Your task to perform on an android device: open app "VLC for Android" (install if not already installed), go to login, and select forgot password Image 0: 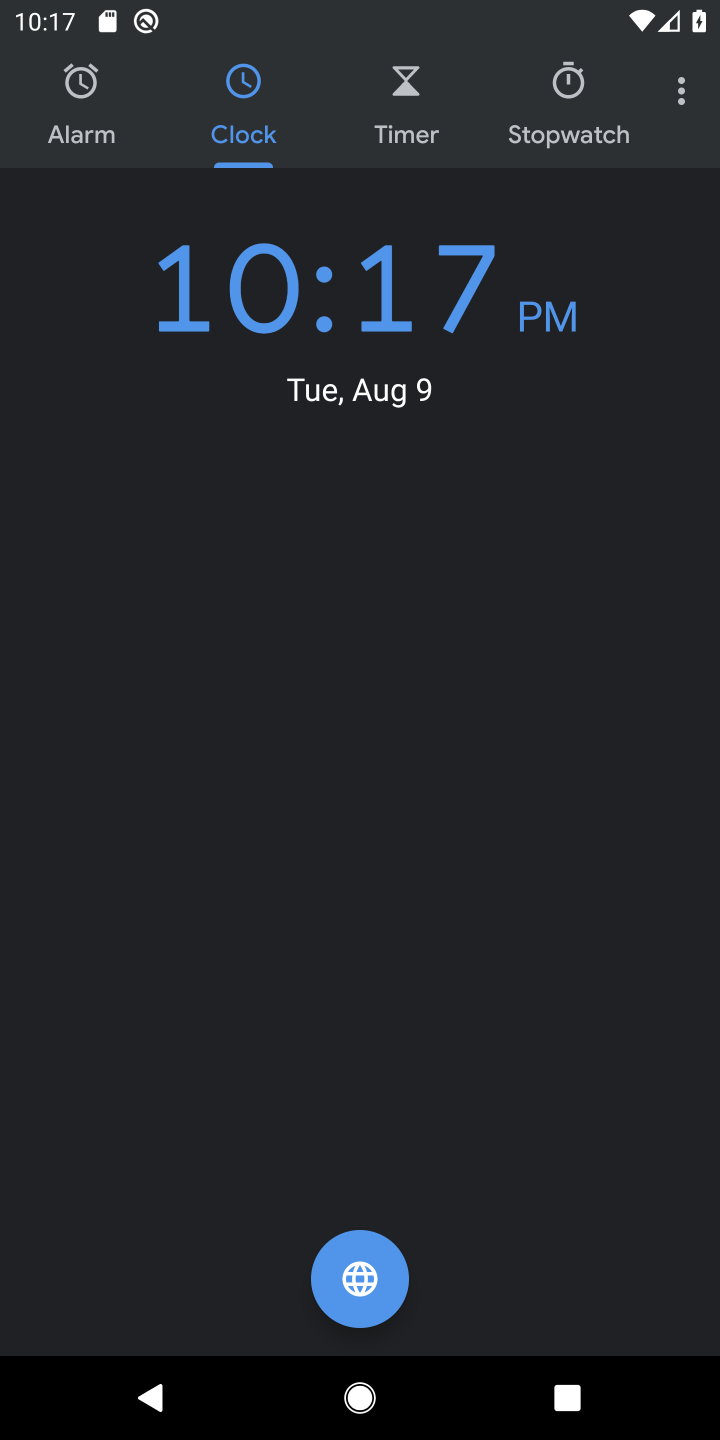
Step 0: press home button
Your task to perform on an android device: open app "VLC for Android" (install if not already installed), go to login, and select forgot password Image 1: 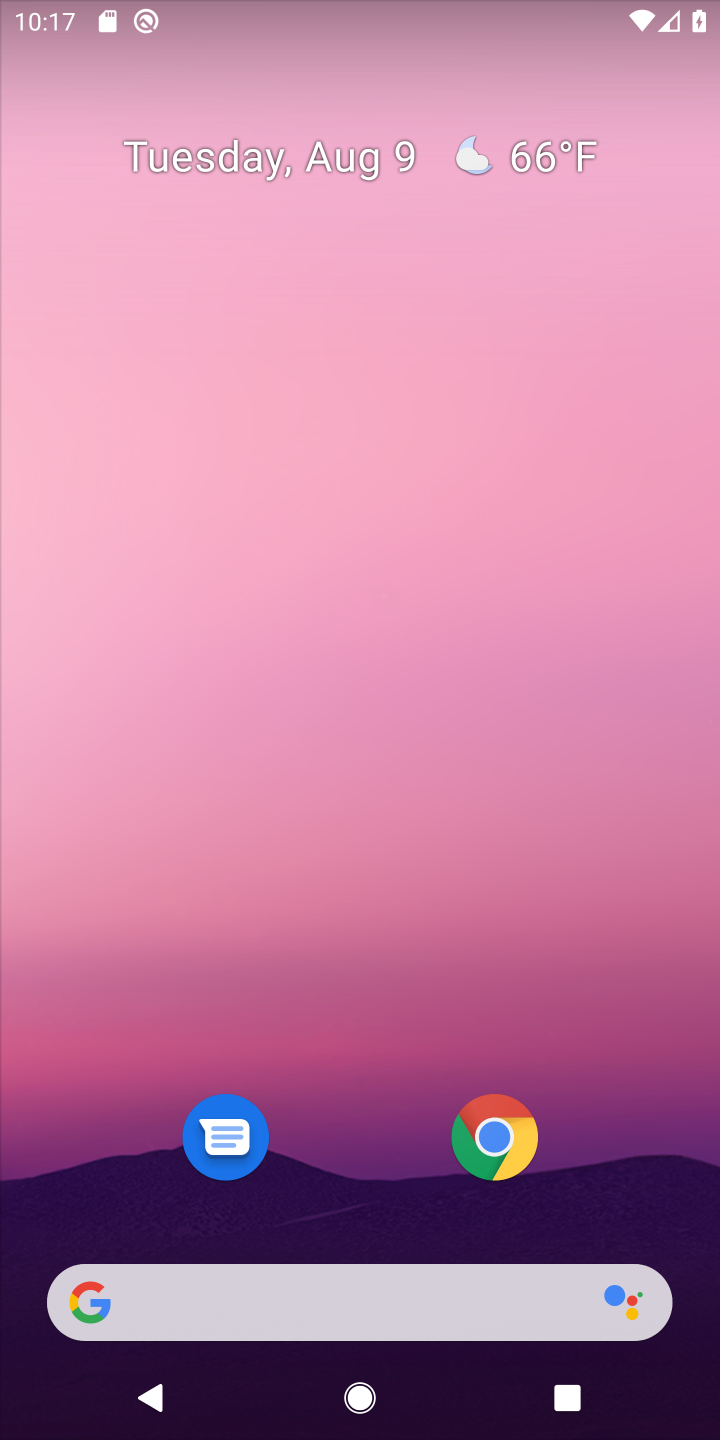
Step 1: drag from (361, 1154) to (382, 542)
Your task to perform on an android device: open app "VLC for Android" (install if not already installed), go to login, and select forgot password Image 2: 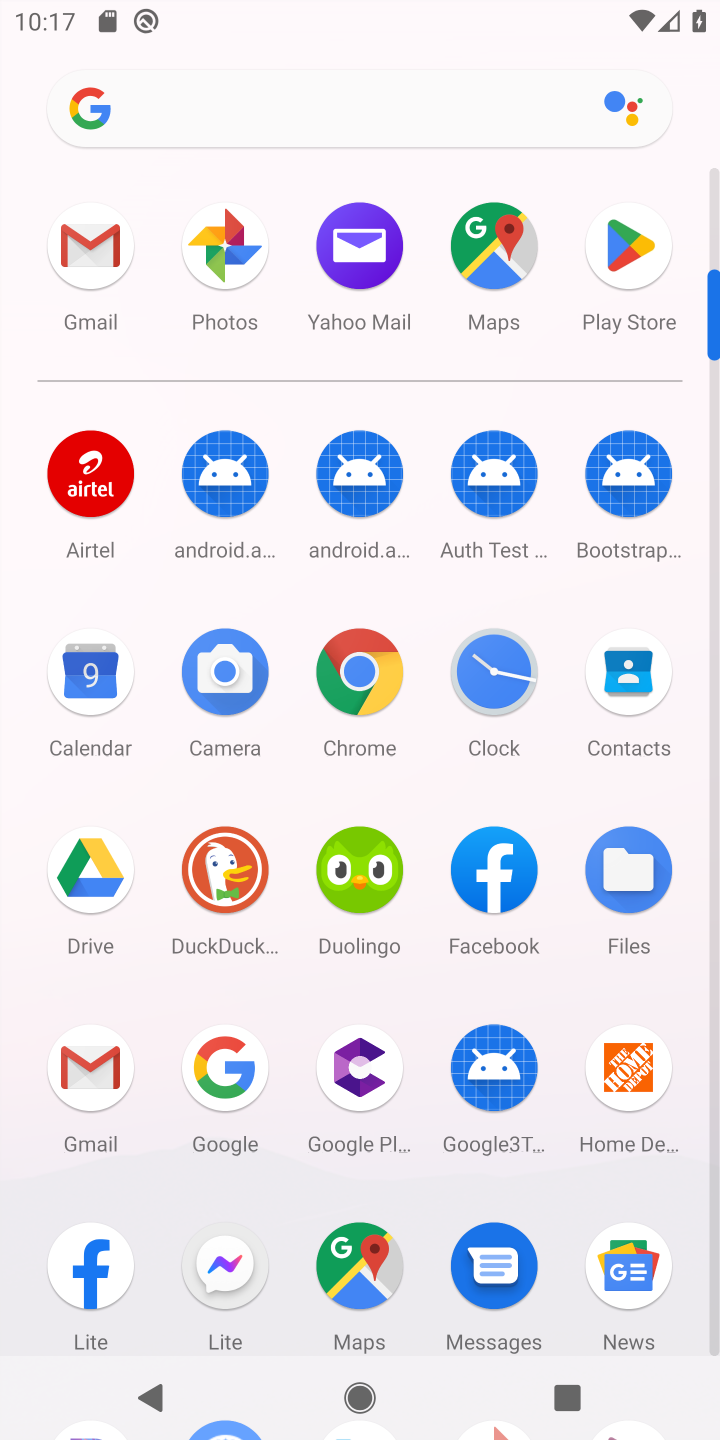
Step 2: click (622, 273)
Your task to perform on an android device: open app "VLC for Android" (install if not already installed), go to login, and select forgot password Image 3: 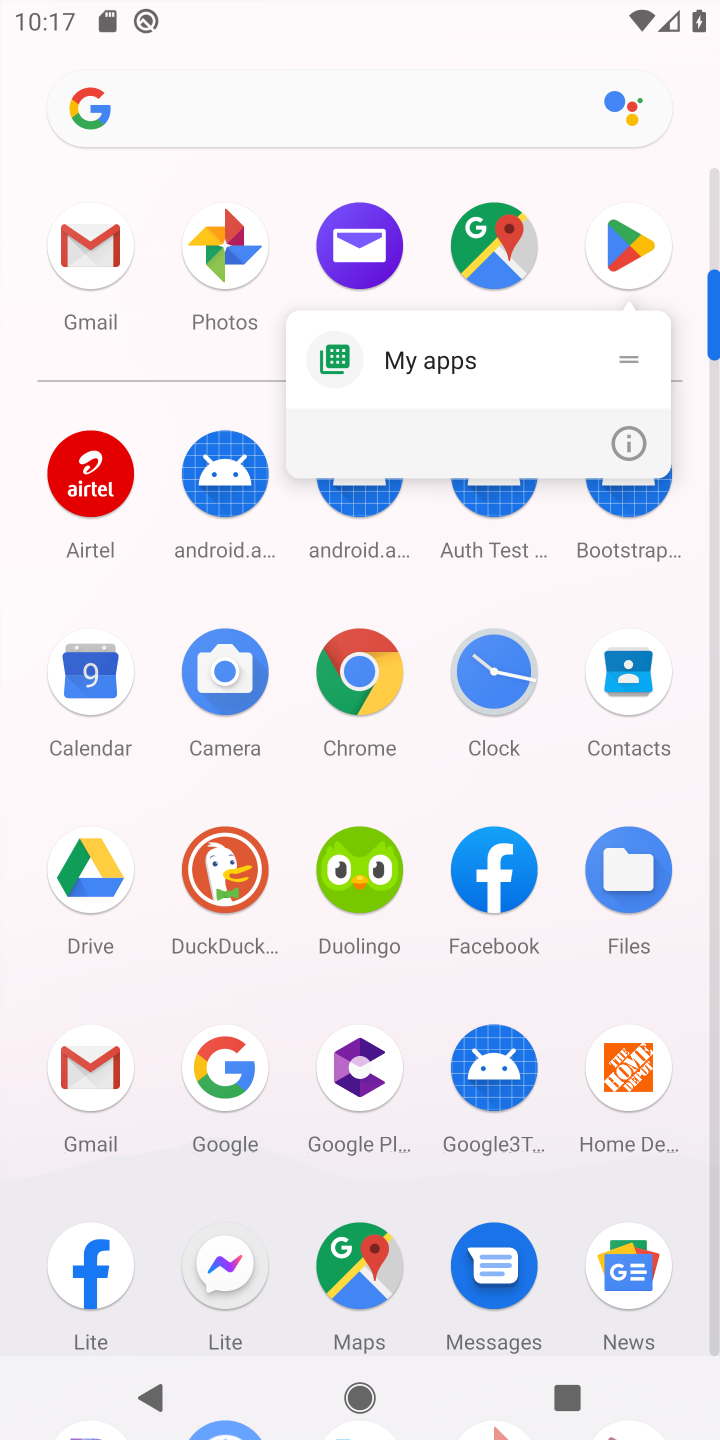
Step 3: click (647, 236)
Your task to perform on an android device: open app "VLC for Android" (install if not already installed), go to login, and select forgot password Image 4: 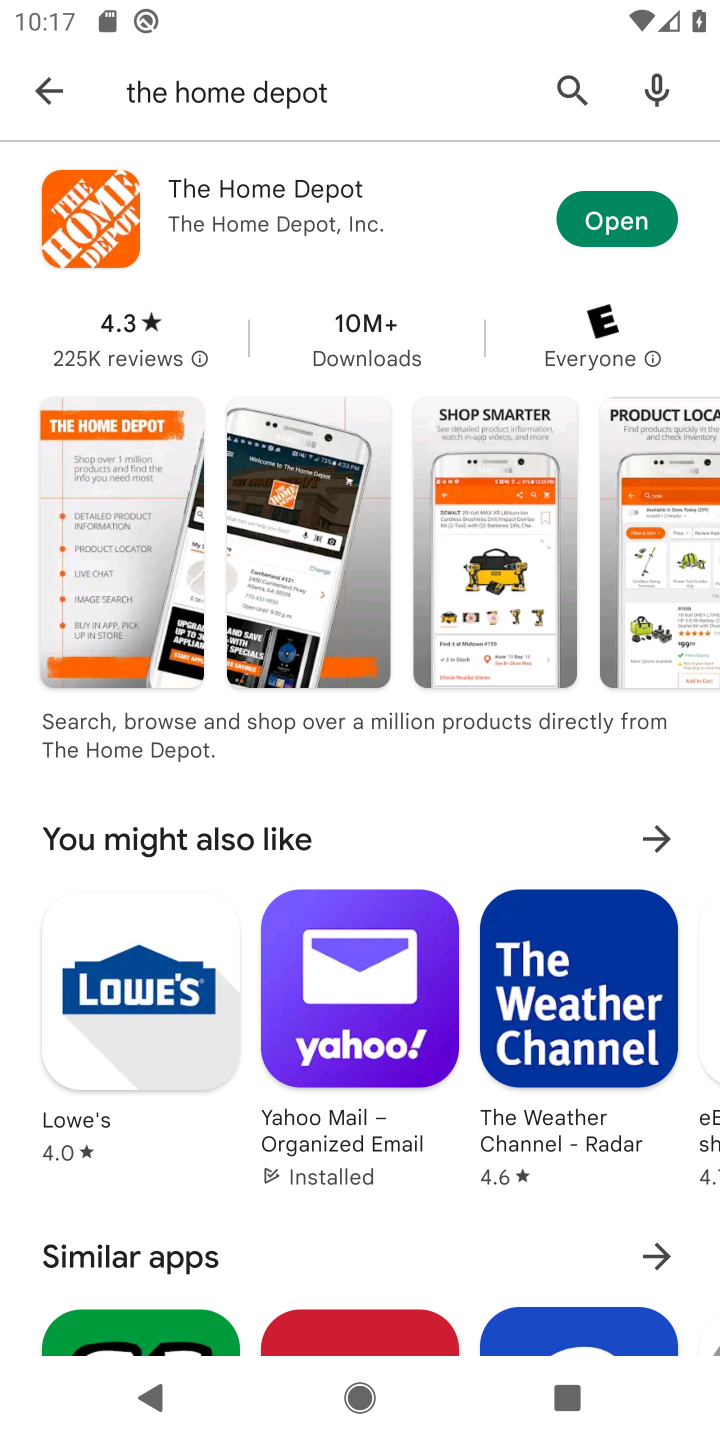
Step 4: click (575, 66)
Your task to perform on an android device: open app "VLC for Android" (install if not already installed), go to login, and select forgot password Image 5: 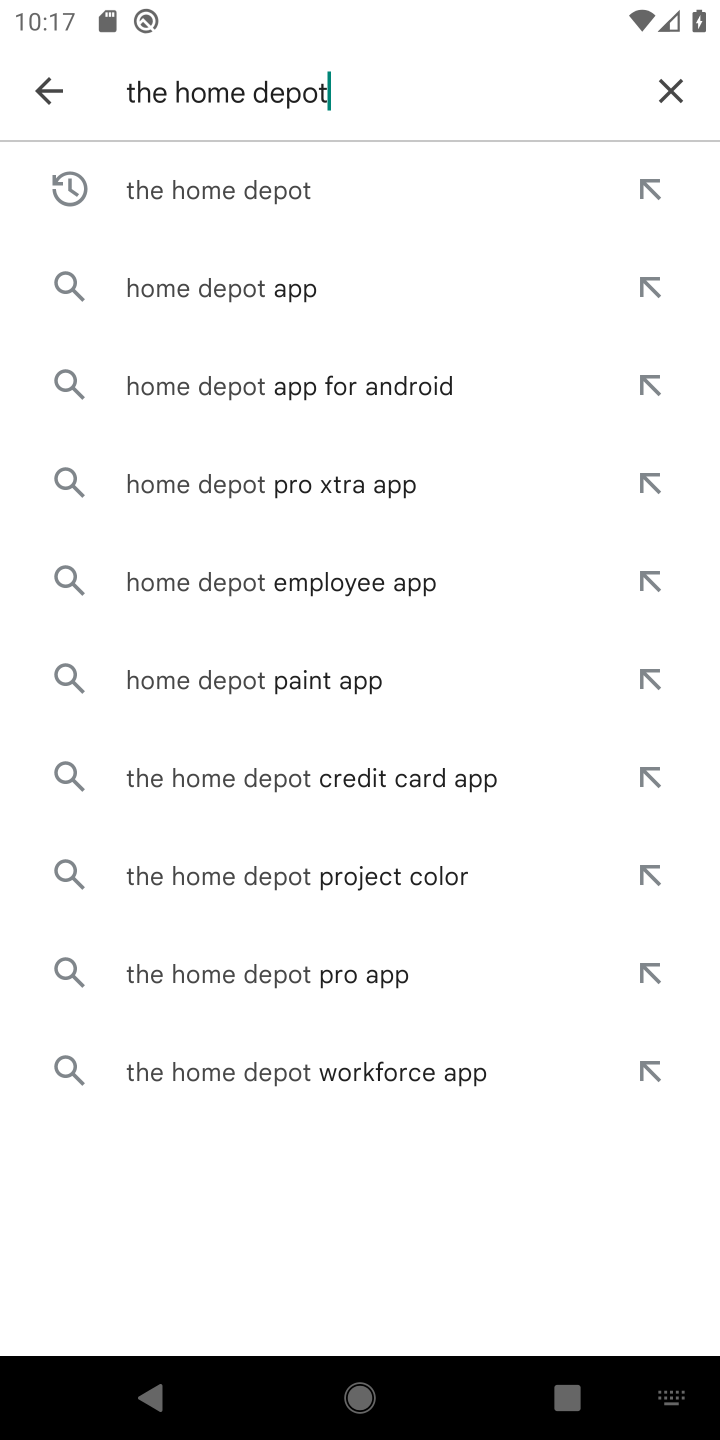
Step 5: click (667, 78)
Your task to perform on an android device: open app "VLC for Android" (install if not already installed), go to login, and select forgot password Image 6: 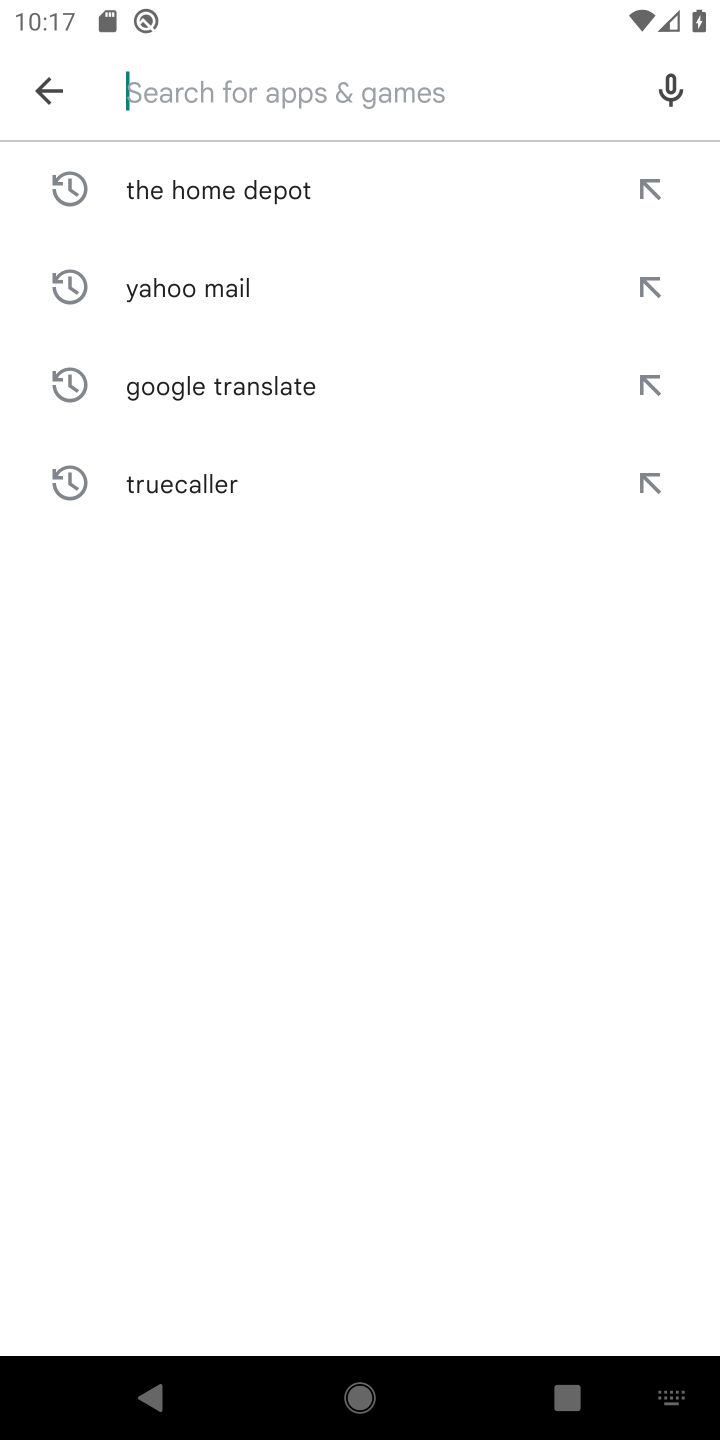
Step 6: type "VLC for Android"
Your task to perform on an android device: open app "VLC for Android" (install if not already installed), go to login, and select forgot password Image 7: 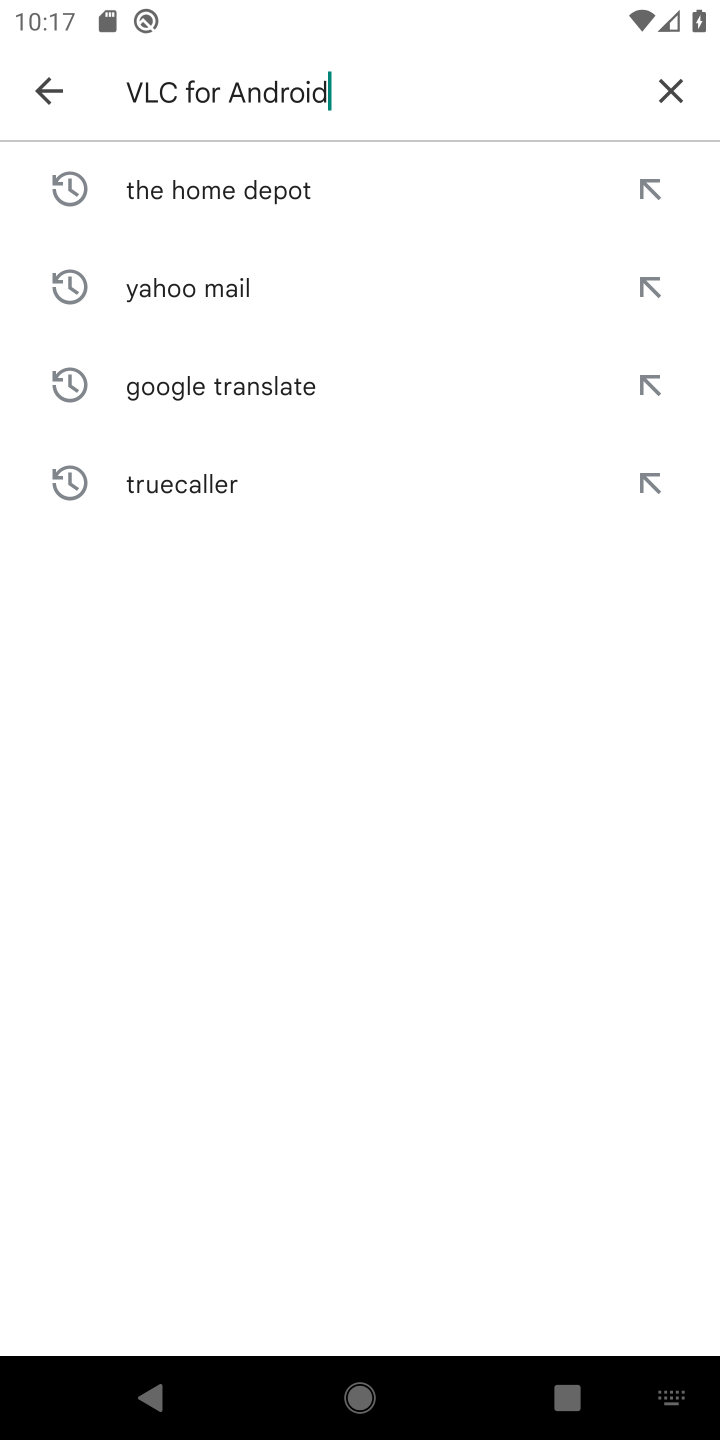
Step 7: type ""
Your task to perform on an android device: open app "VLC for Android" (install if not already installed), go to login, and select forgot password Image 8: 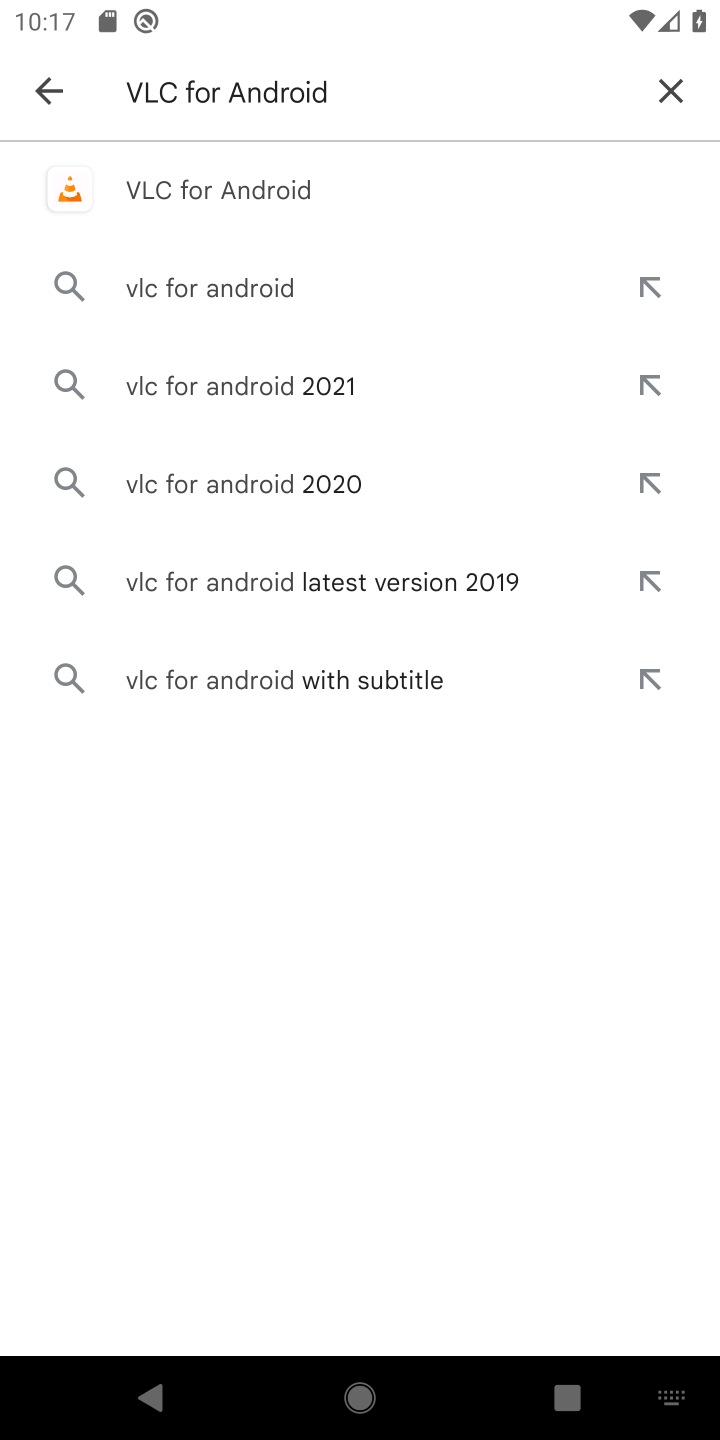
Step 8: click (313, 186)
Your task to perform on an android device: open app "VLC for Android" (install if not already installed), go to login, and select forgot password Image 9: 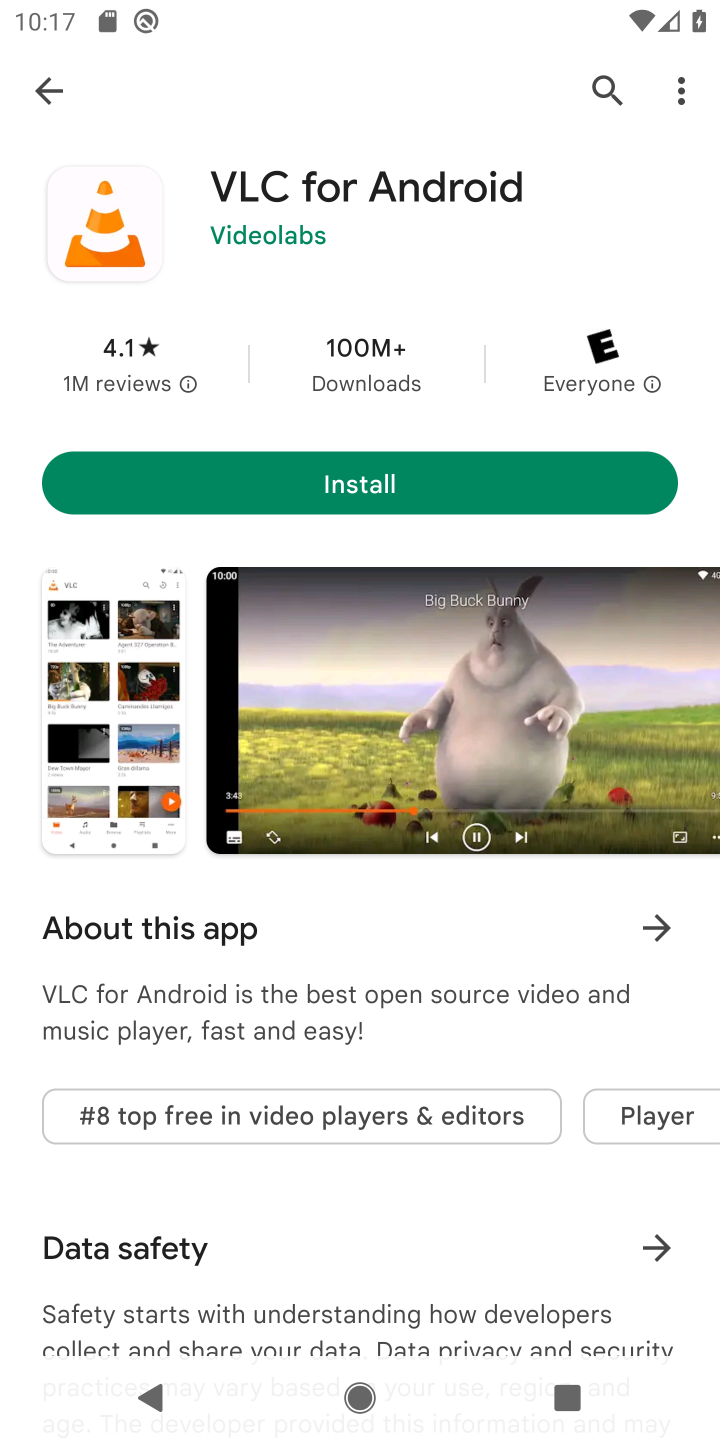
Step 9: click (451, 477)
Your task to perform on an android device: open app "VLC for Android" (install if not already installed), go to login, and select forgot password Image 10: 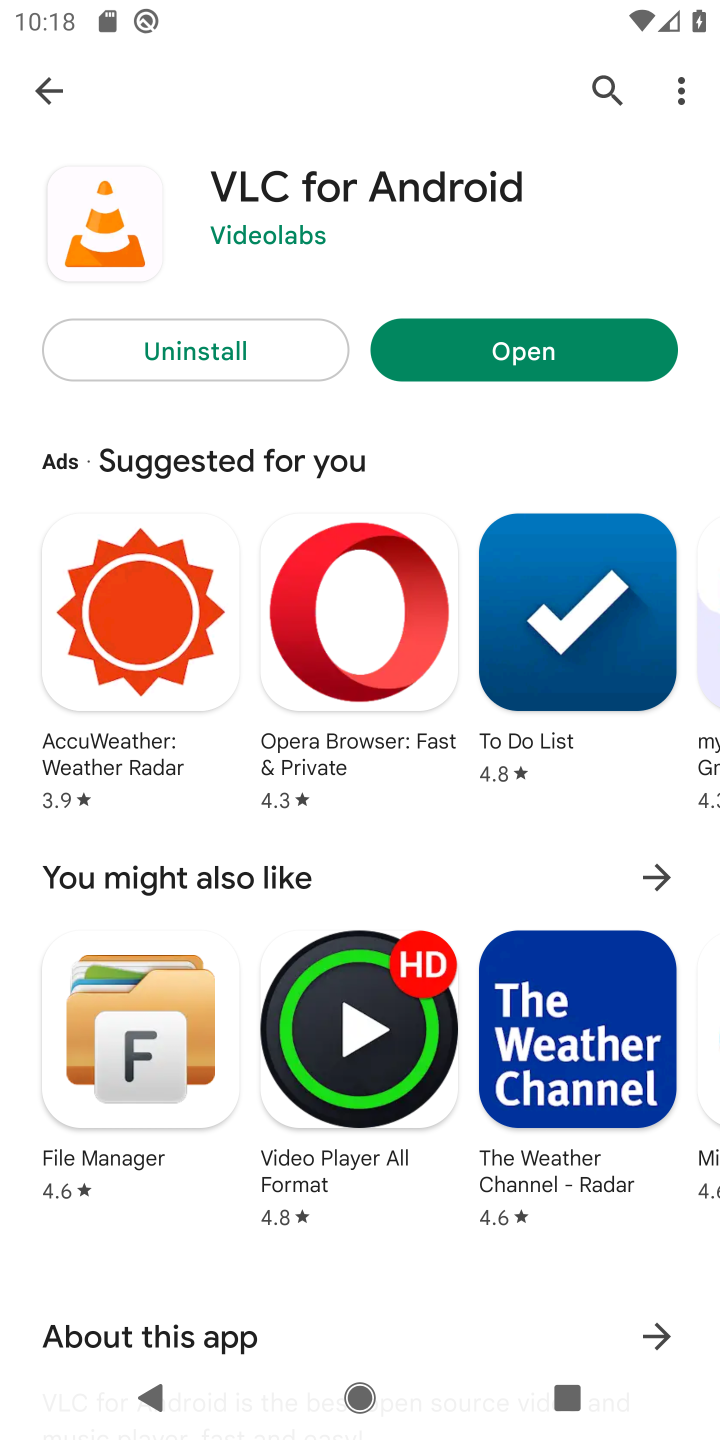
Step 10: click (516, 334)
Your task to perform on an android device: open app "VLC for Android" (install if not already installed), go to login, and select forgot password Image 11: 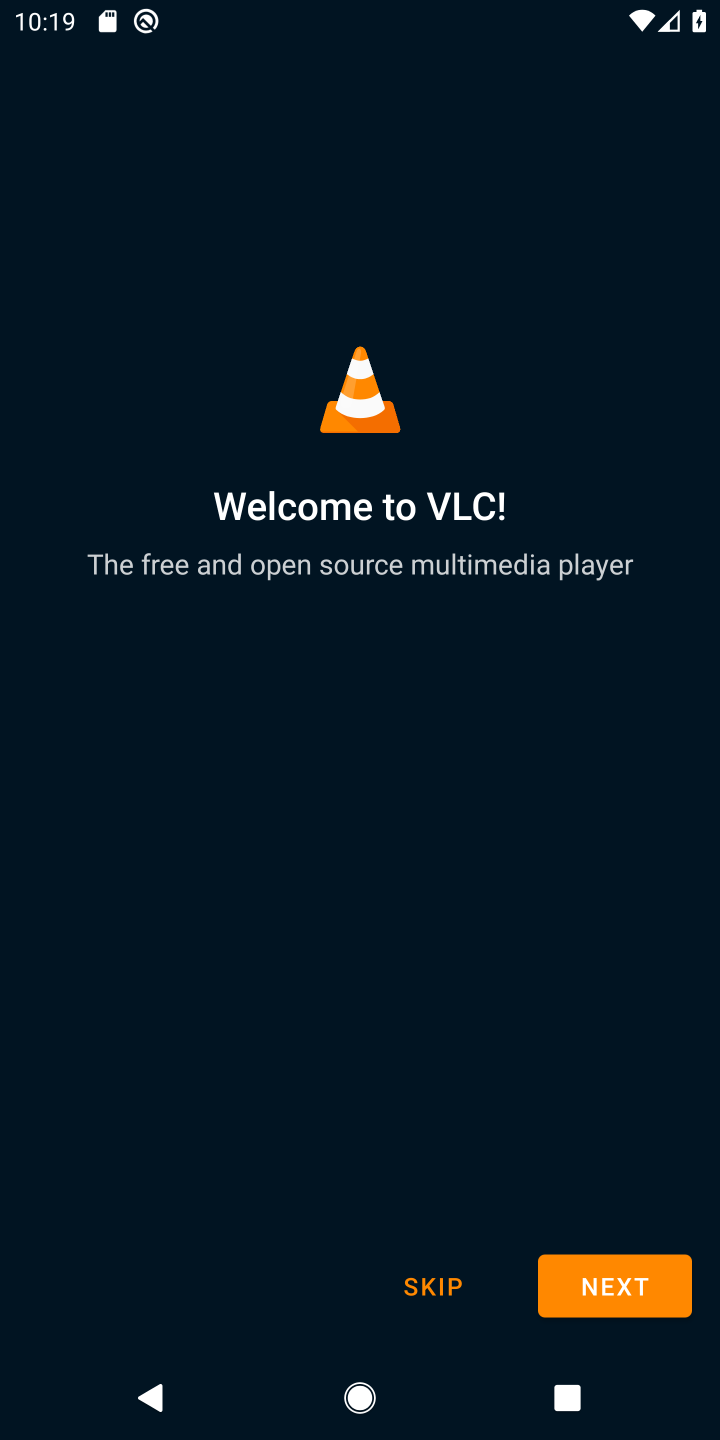
Step 11: task complete